Your task to perform on an android device: turn on sleep mode Image 0: 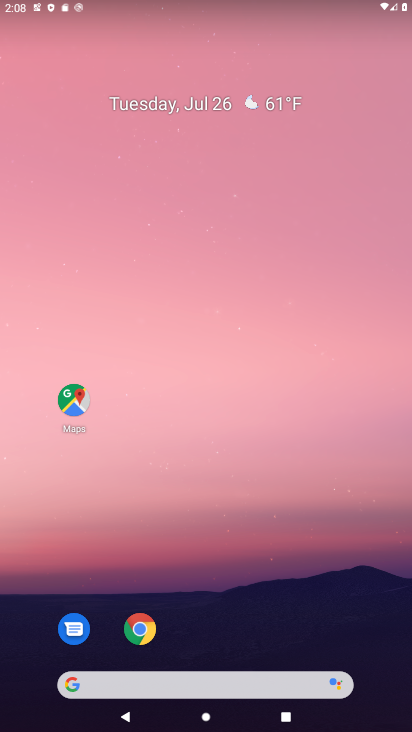
Step 0: drag from (189, 638) to (190, 303)
Your task to perform on an android device: turn on sleep mode Image 1: 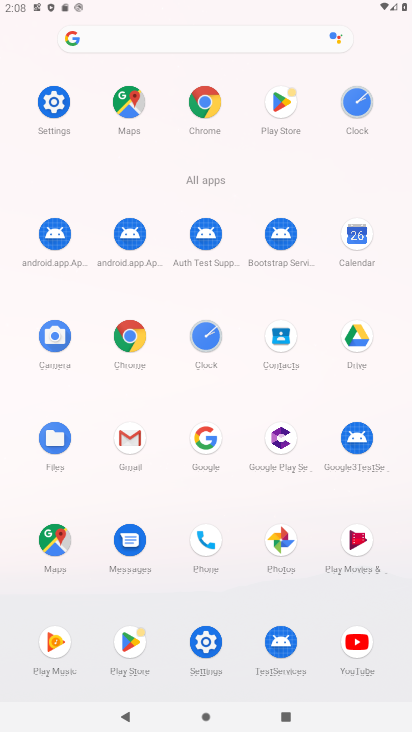
Step 1: click (57, 95)
Your task to perform on an android device: turn on sleep mode Image 2: 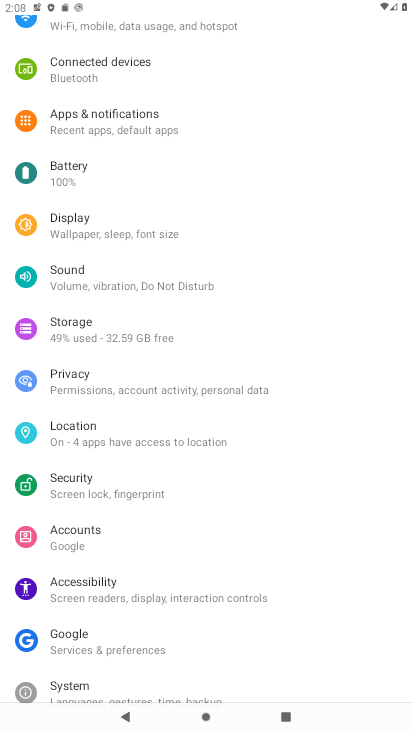
Step 2: task complete